Your task to perform on an android device: Go to Reddit.com Image 0: 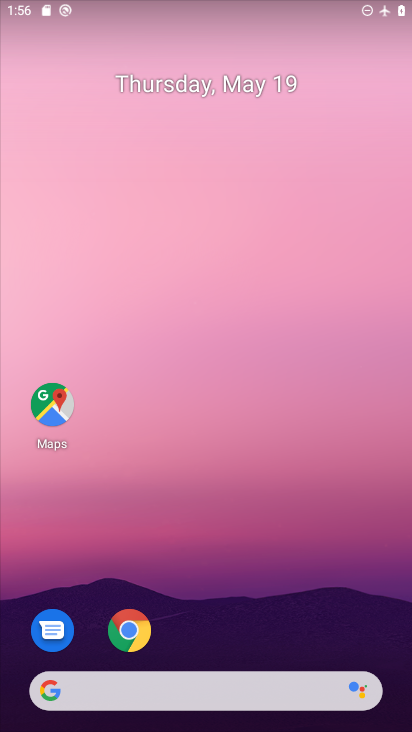
Step 0: click (151, 635)
Your task to perform on an android device: Go to Reddit.com Image 1: 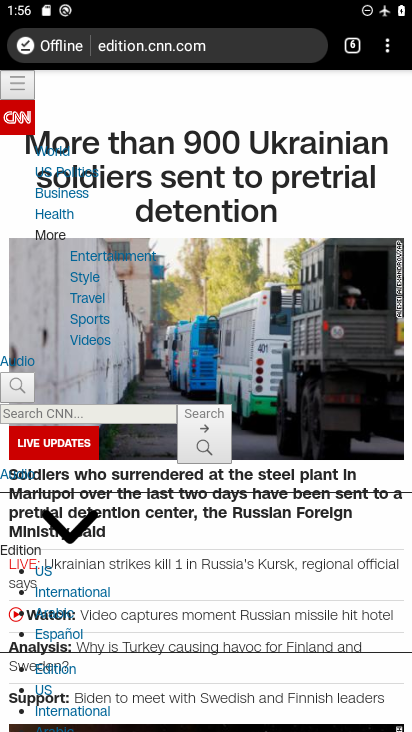
Step 1: click (343, 40)
Your task to perform on an android device: Go to Reddit.com Image 2: 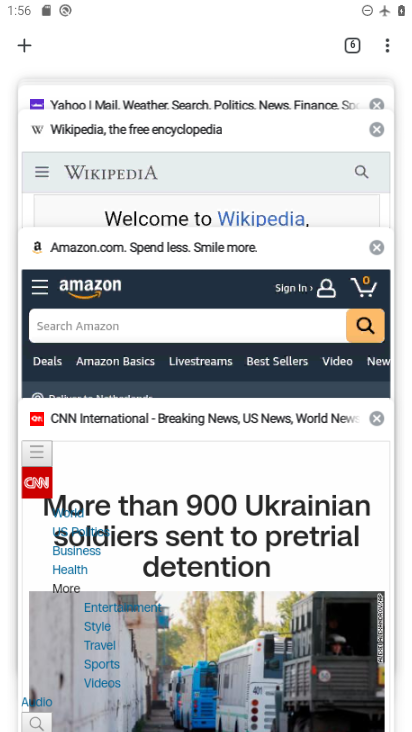
Step 2: click (18, 48)
Your task to perform on an android device: Go to Reddit.com Image 3: 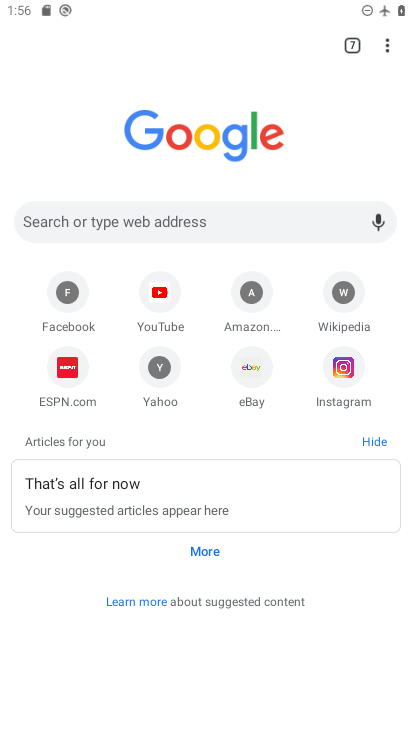
Step 3: click (270, 235)
Your task to perform on an android device: Go to Reddit.com Image 4: 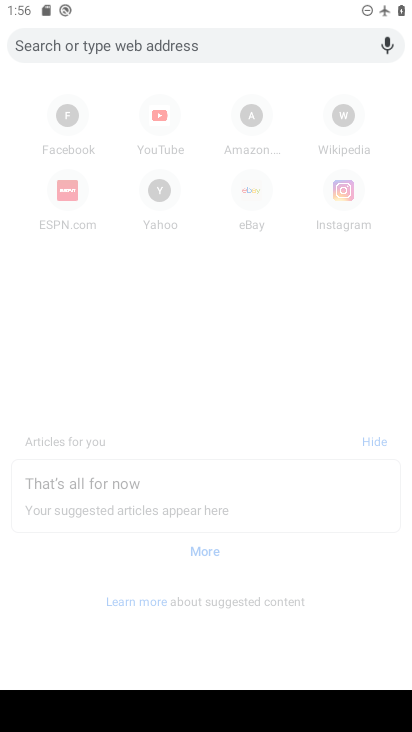
Step 4: click (354, 134)
Your task to perform on an android device: Go to Reddit.com Image 5: 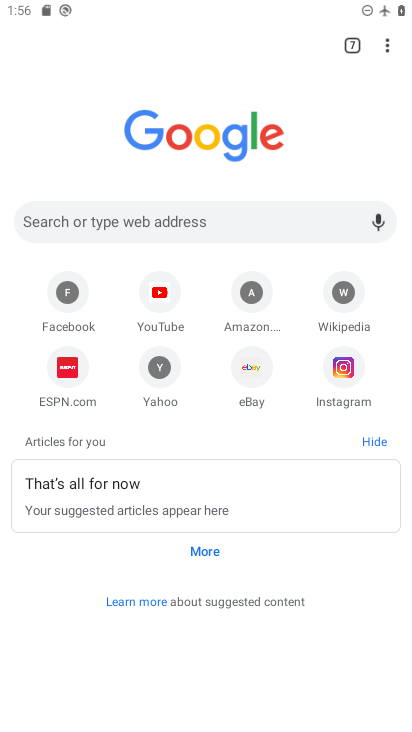
Step 5: task complete